Your task to perform on an android device: open chrome and create a bookmark for the current page Image 0: 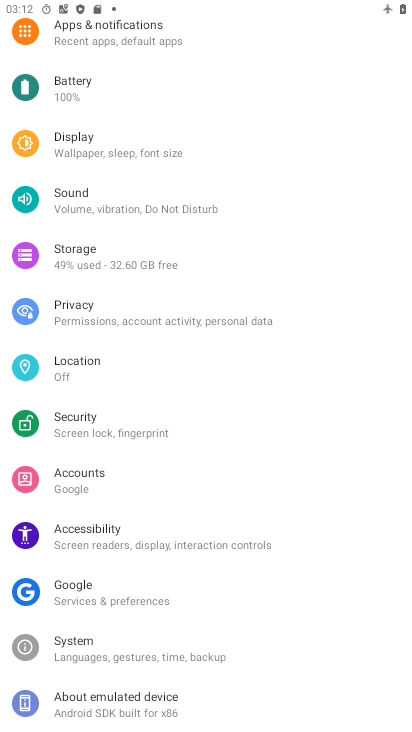
Step 0: press home button
Your task to perform on an android device: open chrome and create a bookmark for the current page Image 1: 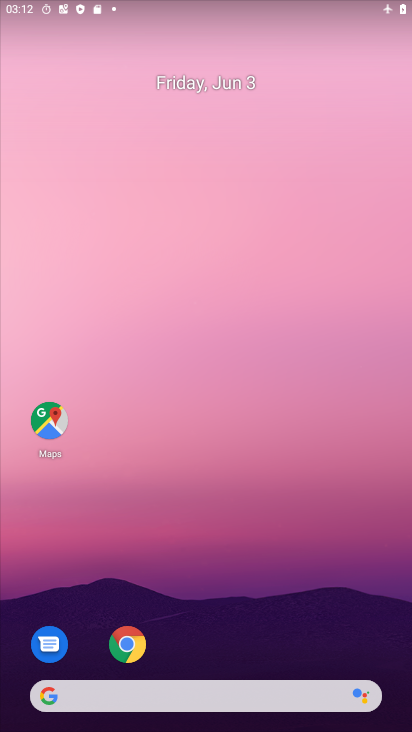
Step 1: click (143, 648)
Your task to perform on an android device: open chrome and create a bookmark for the current page Image 2: 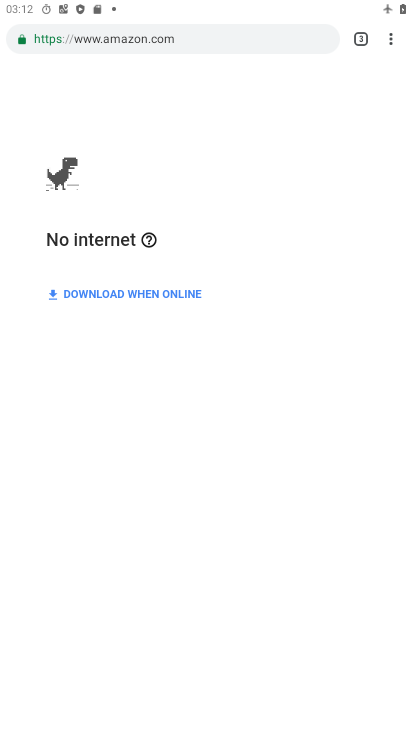
Step 2: click (384, 39)
Your task to perform on an android device: open chrome and create a bookmark for the current page Image 3: 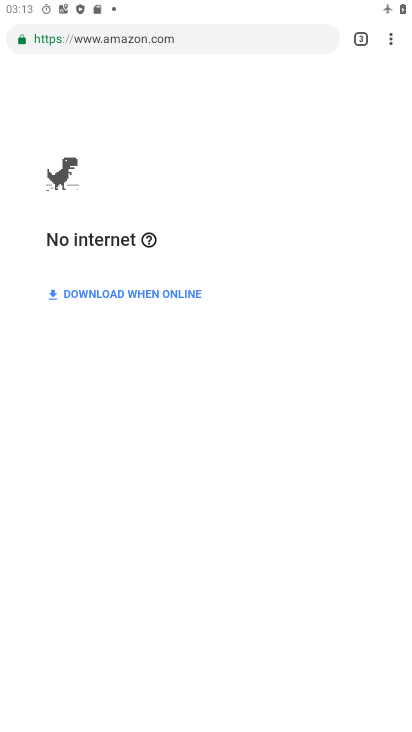
Step 3: task complete